Your task to perform on an android device: Go to network settings Image 0: 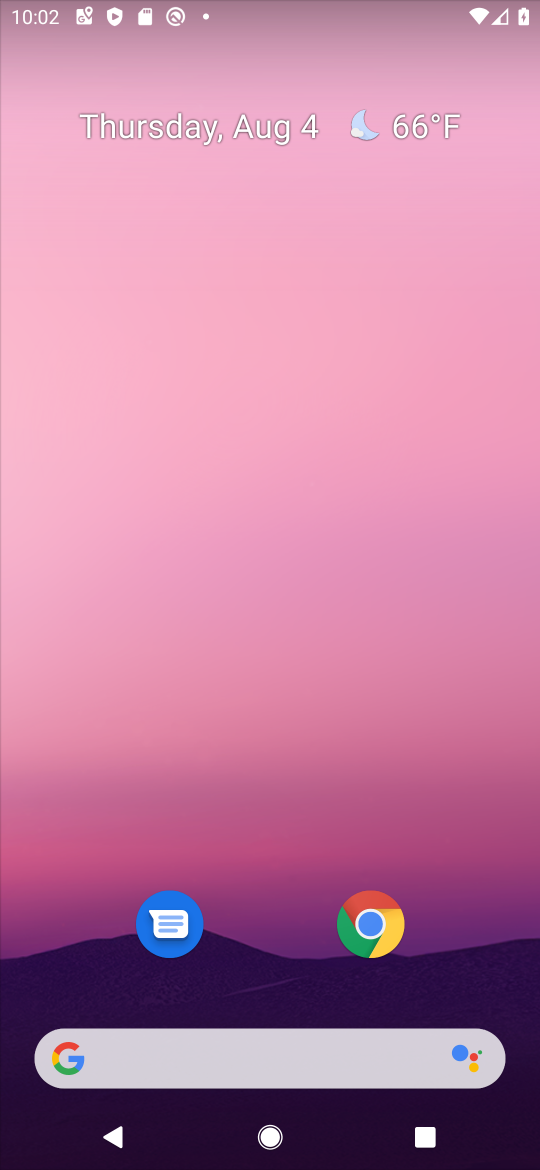
Step 0: drag from (286, 891) to (295, 142)
Your task to perform on an android device: Go to network settings Image 1: 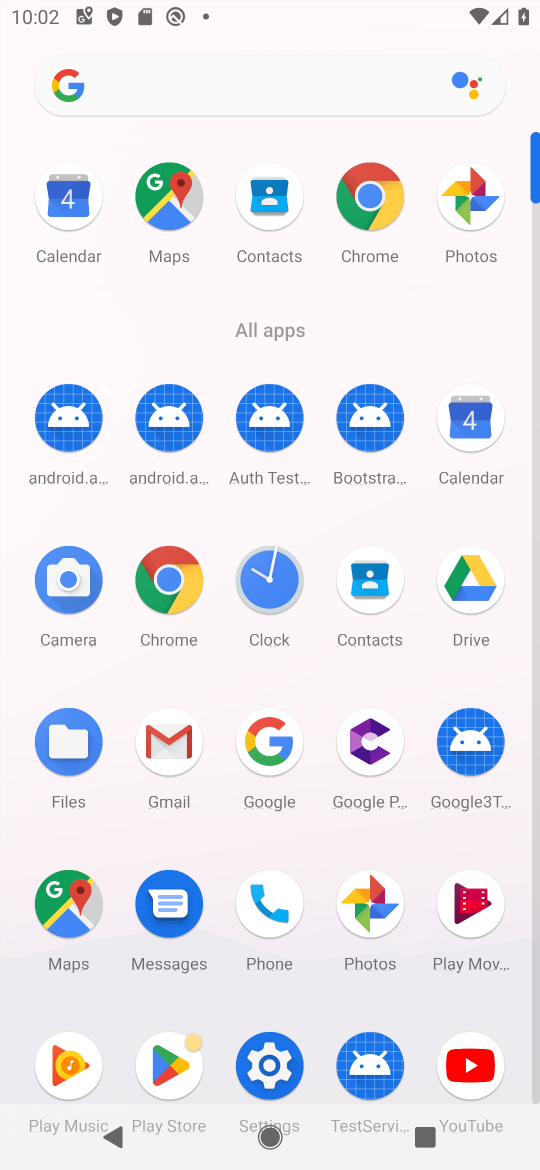
Step 1: click (257, 1060)
Your task to perform on an android device: Go to network settings Image 2: 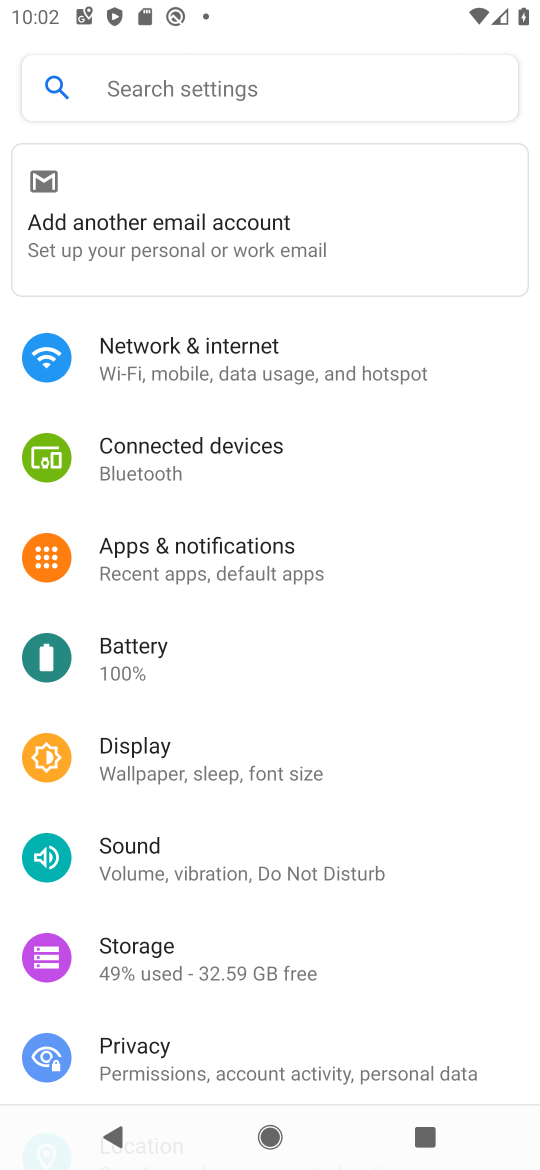
Step 2: click (192, 362)
Your task to perform on an android device: Go to network settings Image 3: 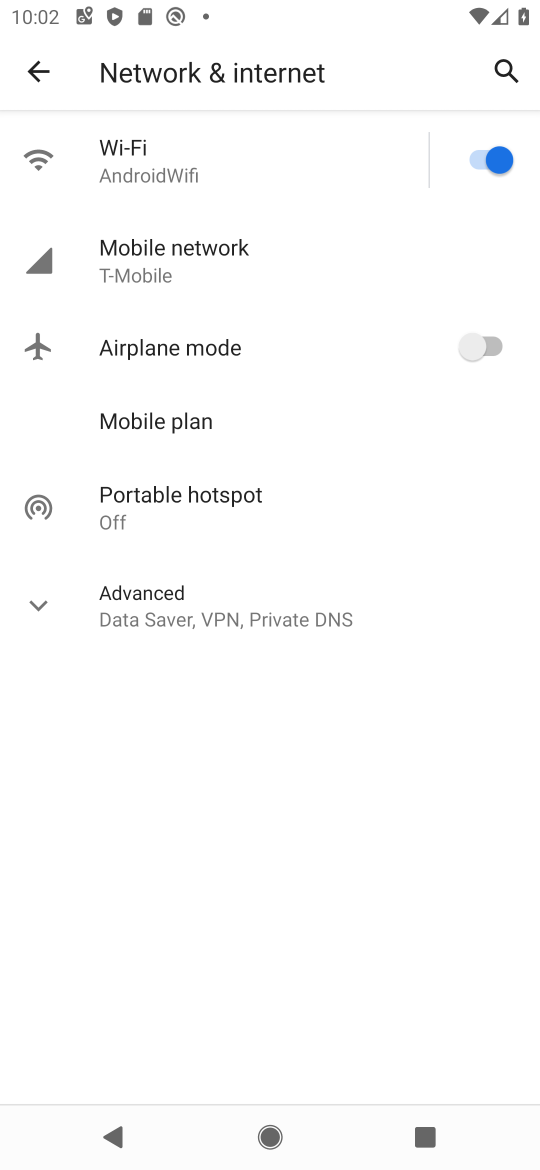
Step 3: task complete